Your task to perform on an android device: Open Google Chrome Image 0: 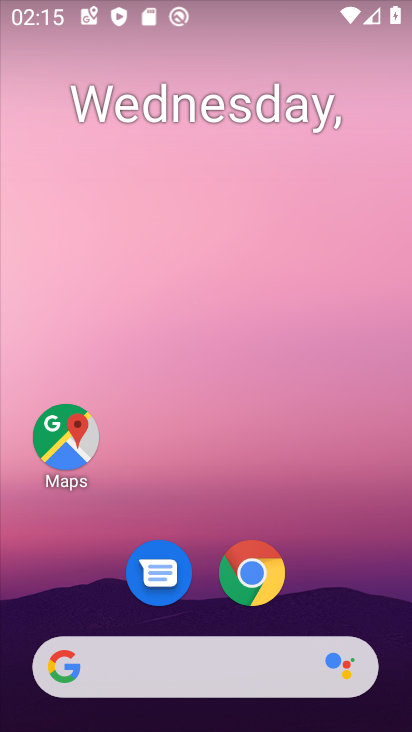
Step 0: click (250, 573)
Your task to perform on an android device: Open Google Chrome Image 1: 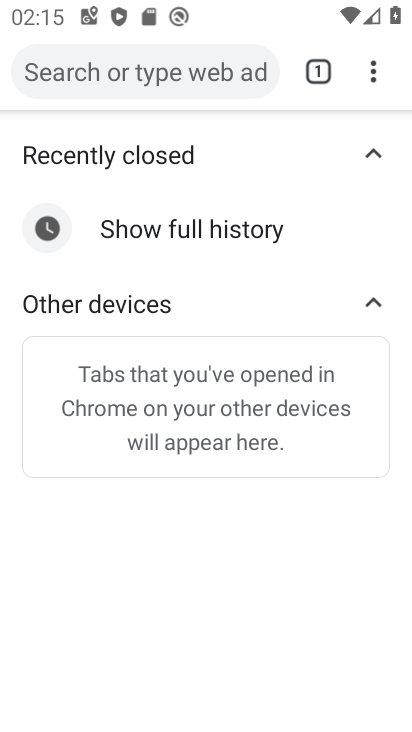
Step 1: click (371, 84)
Your task to perform on an android device: Open Google Chrome Image 2: 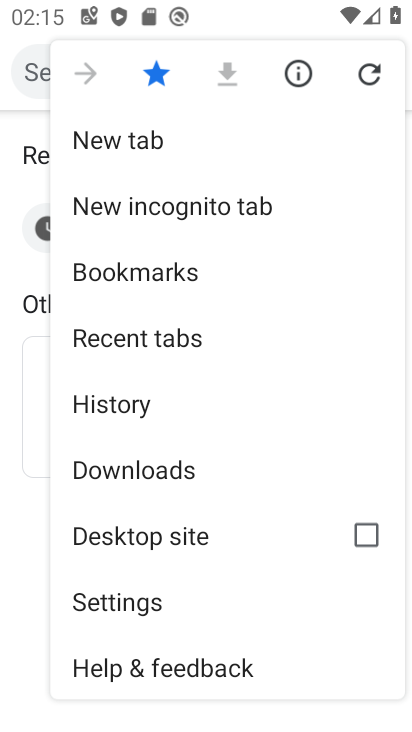
Step 2: click (18, 509)
Your task to perform on an android device: Open Google Chrome Image 3: 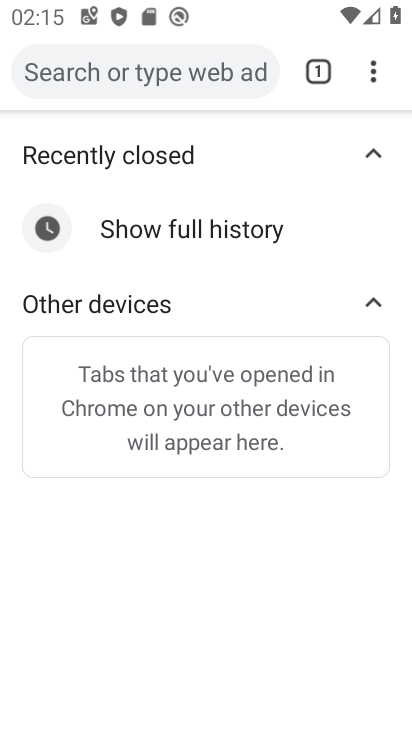
Step 3: task complete